Your task to perform on an android device: open app "Life360: Find Family & Friends" Image 0: 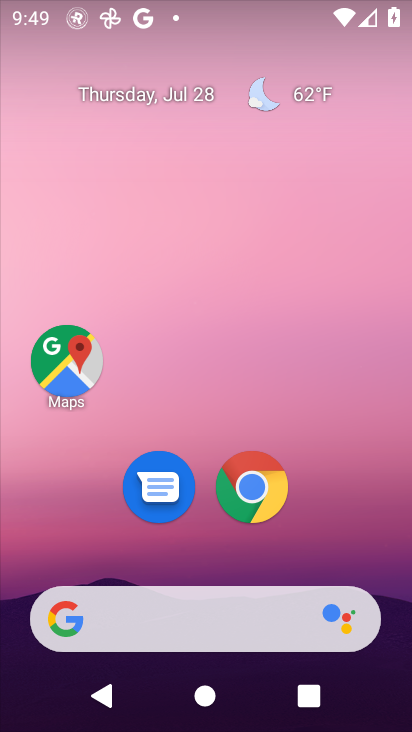
Step 0: drag from (271, 638) to (188, 178)
Your task to perform on an android device: open app "Life360: Find Family & Friends" Image 1: 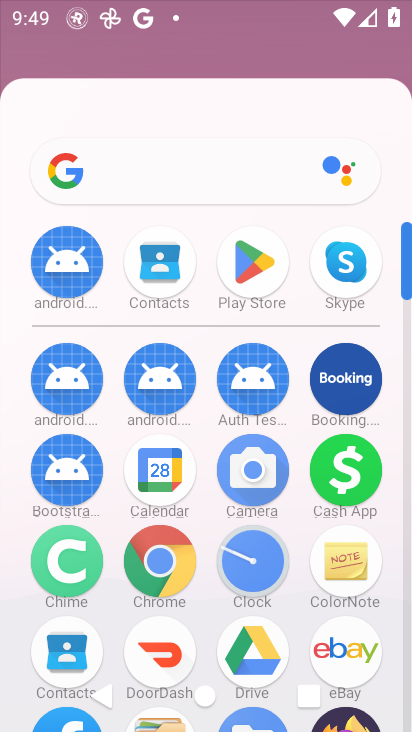
Step 1: drag from (229, 446) to (221, 383)
Your task to perform on an android device: open app "Life360: Find Family & Friends" Image 2: 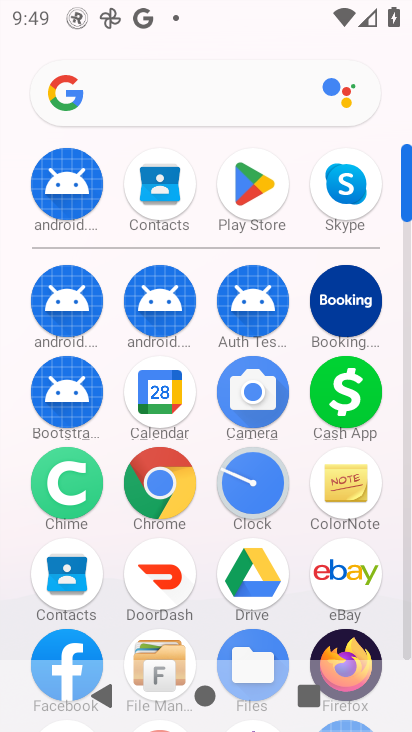
Step 2: click (241, 174)
Your task to perform on an android device: open app "Life360: Find Family & Friends" Image 3: 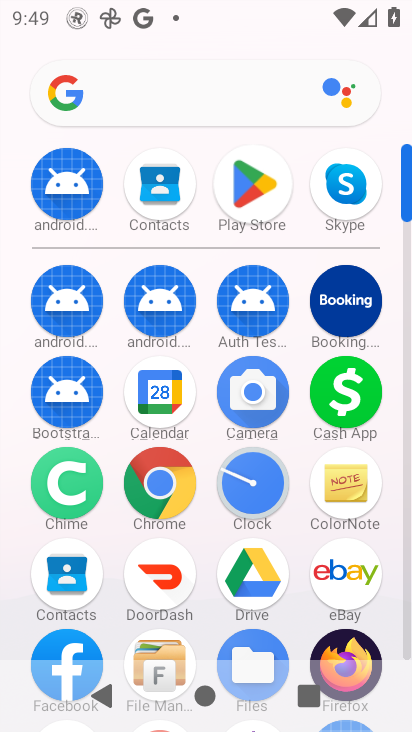
Step 3: click (242, 175)
Your task to perform on an android device: open app "Life360: Find Family & Friends" Image 4: 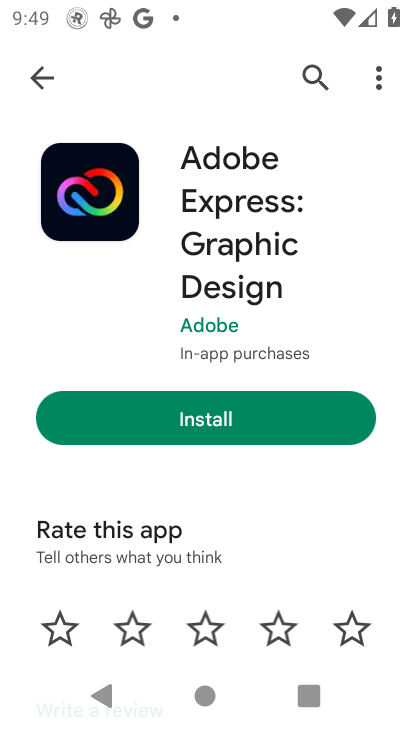
Step 4: click (31, 71)
Your task to perform on an android device: open app "Life360: Find Family & Friends" Image 5: 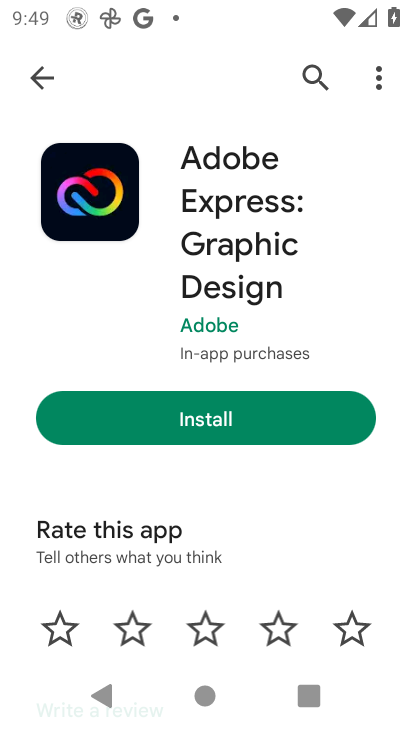
Step 5: click (42, 73)
Your task to perform on an android device: open app "Life360: Find Family & Friends" Image 6: 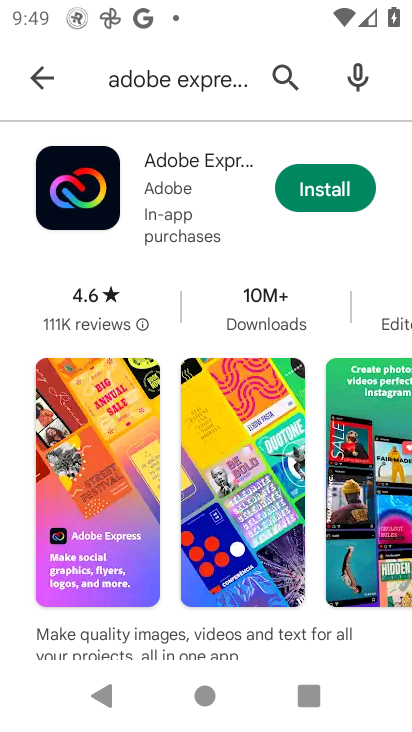
Step 6: click (41, 75)
Your task to perform on an android device: open app "Life360: Find Family & Friends" Image 7: 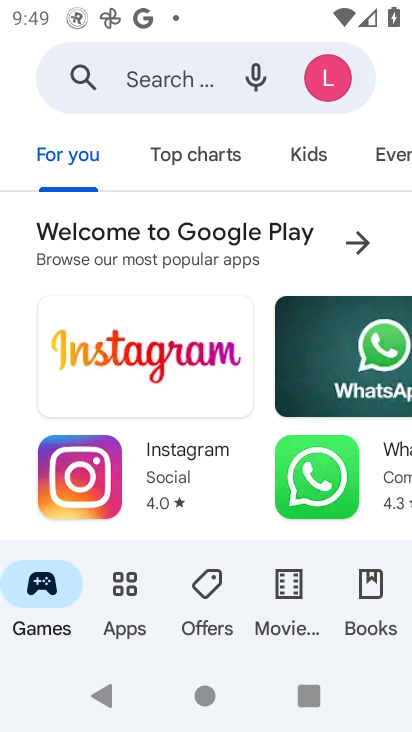
Step 7: click (131, 79)
Your task to perform on an android device: open app "Life360: Find Family & Friends" Image 8: 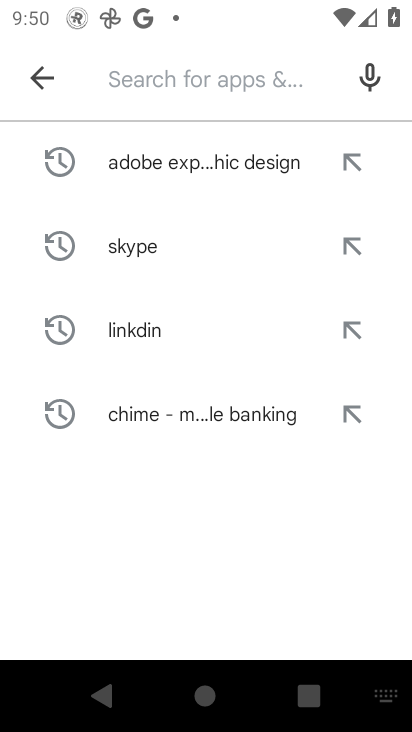
Step 8: type "life360: Find Family & Friends"
Your task to perform on an android device: open app "Life360: Find Family & Friends" Image 9: 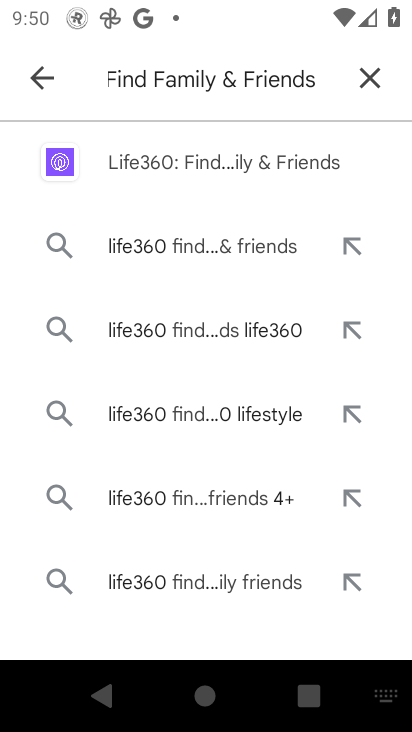
Step 9: click (310, 164)
Your task to perform on an android device: open app "Life360: Find Family & Friends" Image 10: 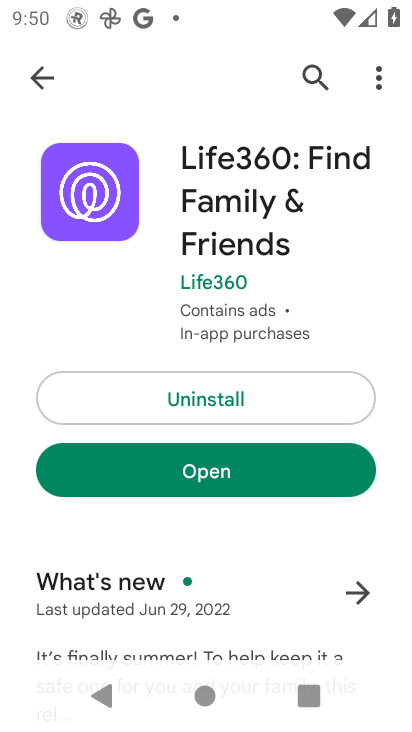
Step 10: click (220, 464)
Your task to perform on an android device: open app "Life360: Find Family & Friends" Image 11: 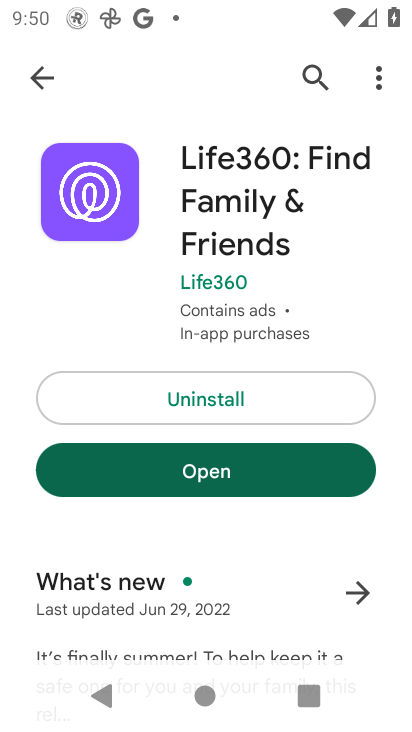
Step 11: click (222, 464)
Your task to perform on an android device: open app "Life360: Find Family & Friends" Image 12: 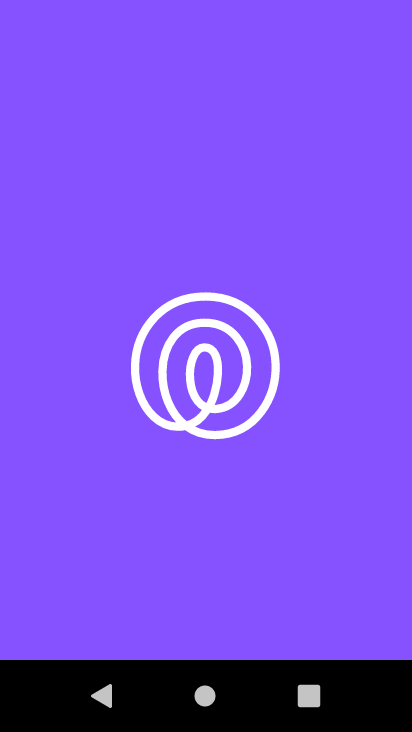
Step 12: click (254, 494)
Your task to perform on an android device: open app "Life360: Find Family & Friends" Image 13: 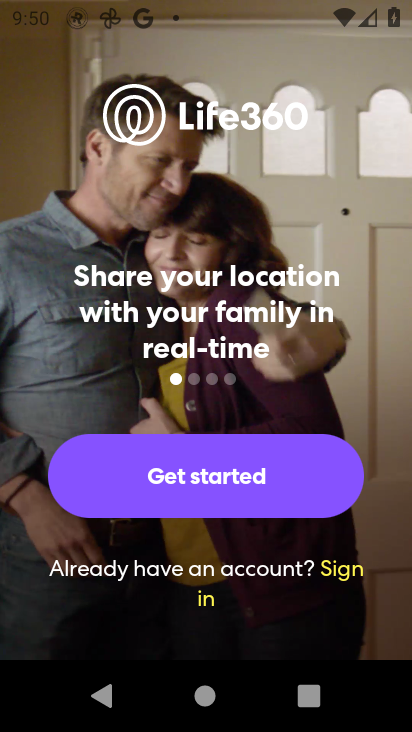
Step 13: task complete